Your task to perform on an android device: Go to Yahoo.com Image 0: 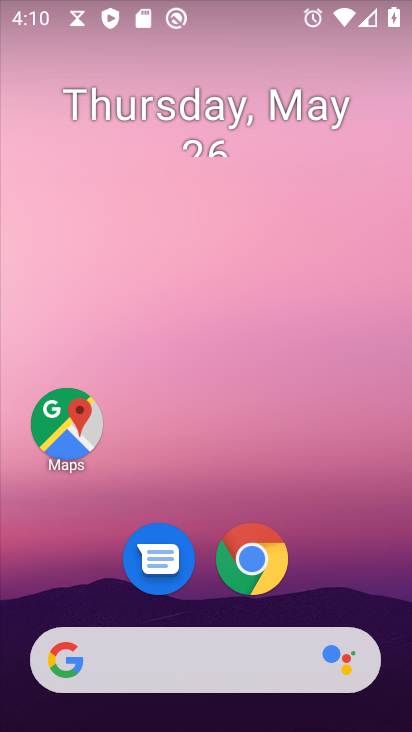
Step 0: click (244, 561)
Your task to perform on an android device: Go to Yahoo.com Image 1: 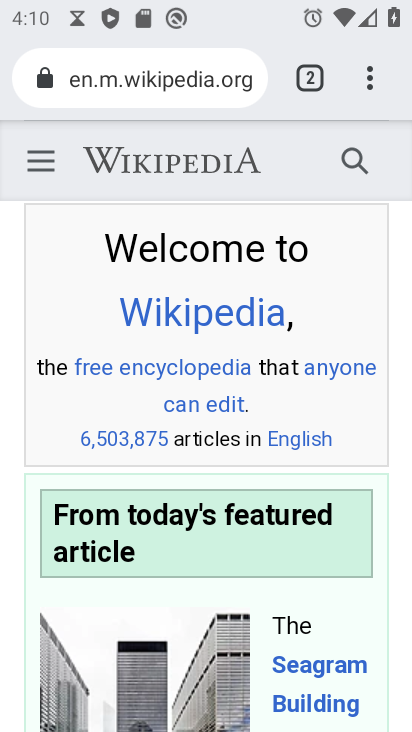
Step 1: click (320, 75)
Your task to perform on an android device: Go to Yahoo.com Image 2: 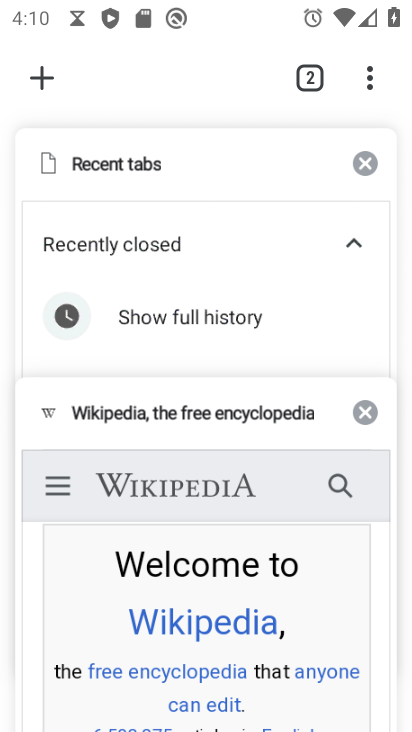
Step 2: click (49, 78)
Your task to perform on an android device: Go to Yahoo.com Image 3: 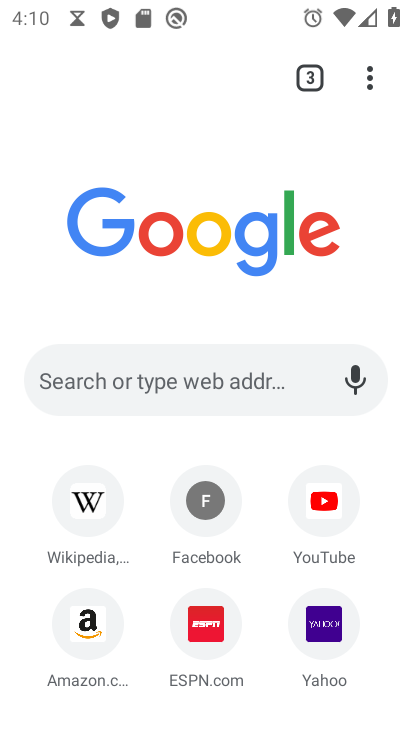
Step 3: click (316, 615)
Your task to perform on an android device: Go to Yahoo.com Image 4: 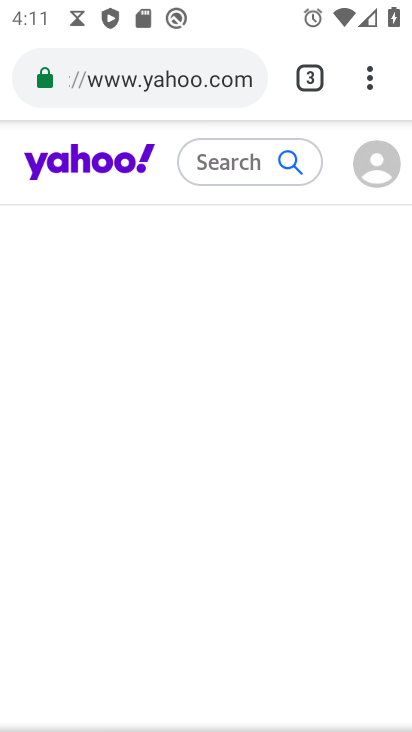
Step 4: task complete